Your task to perform on an android device: open app "File Manager" (install if not already installed) Image 0: 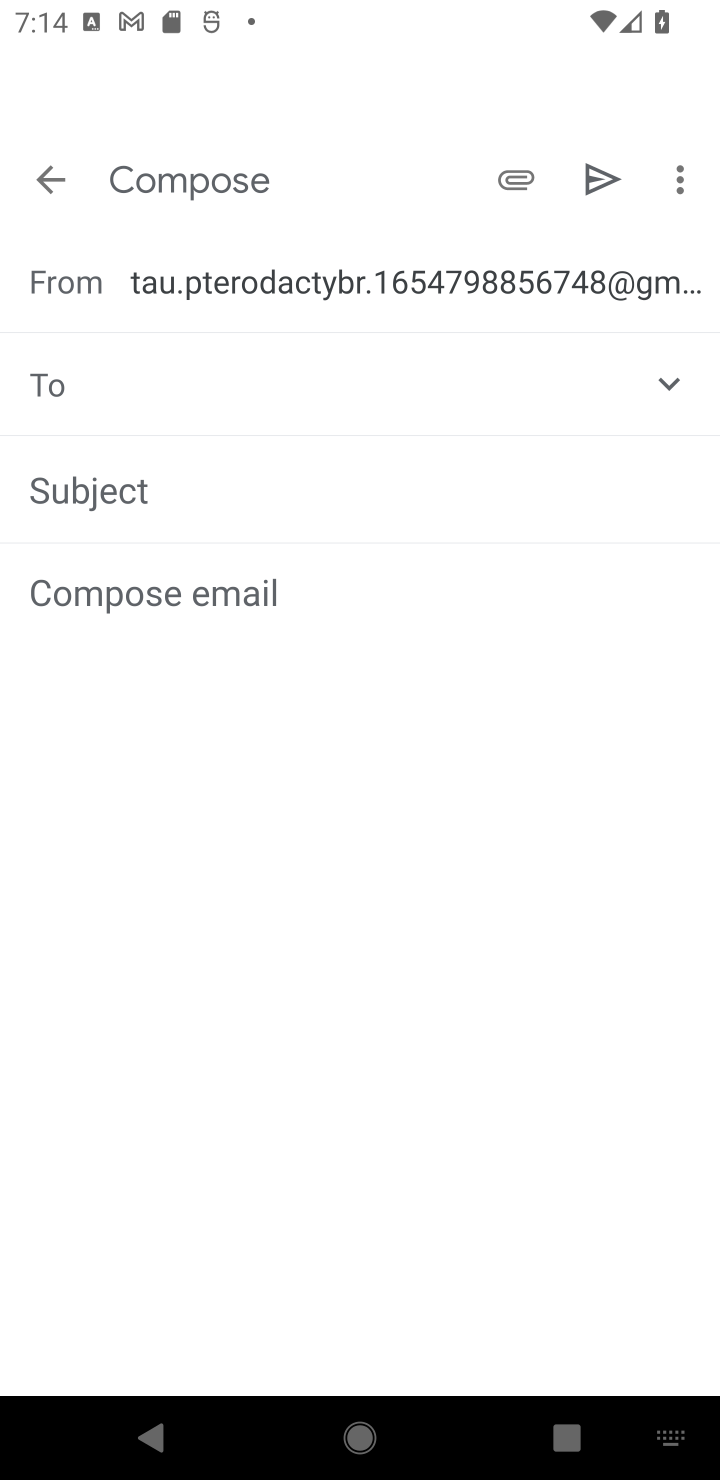
Step 0: press home button
Your task to perform on an android device: open app "File Manager" (install if not already installed) Image 1: 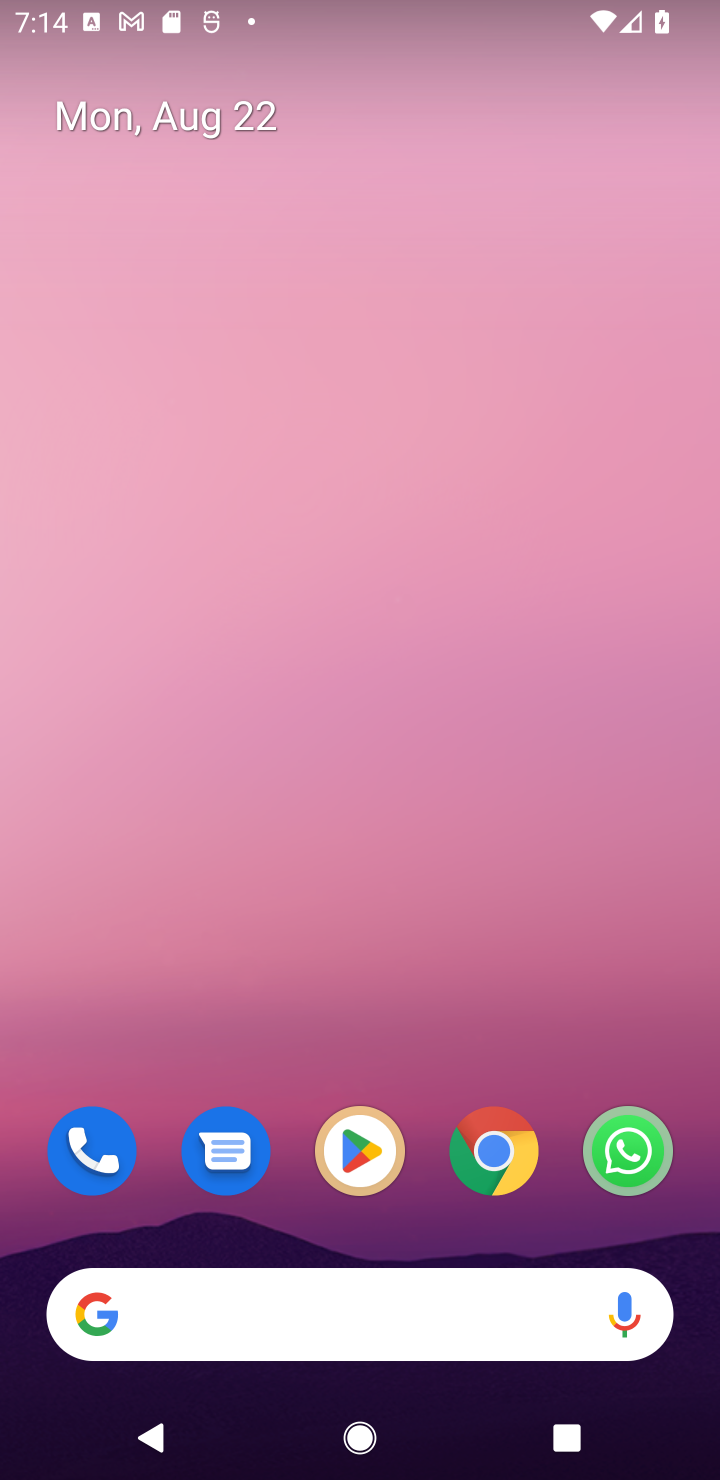
Step 1: click (360, 1163)
Your task to perform on an android device: open app "File Manager" (install if not already installed) Image 2: 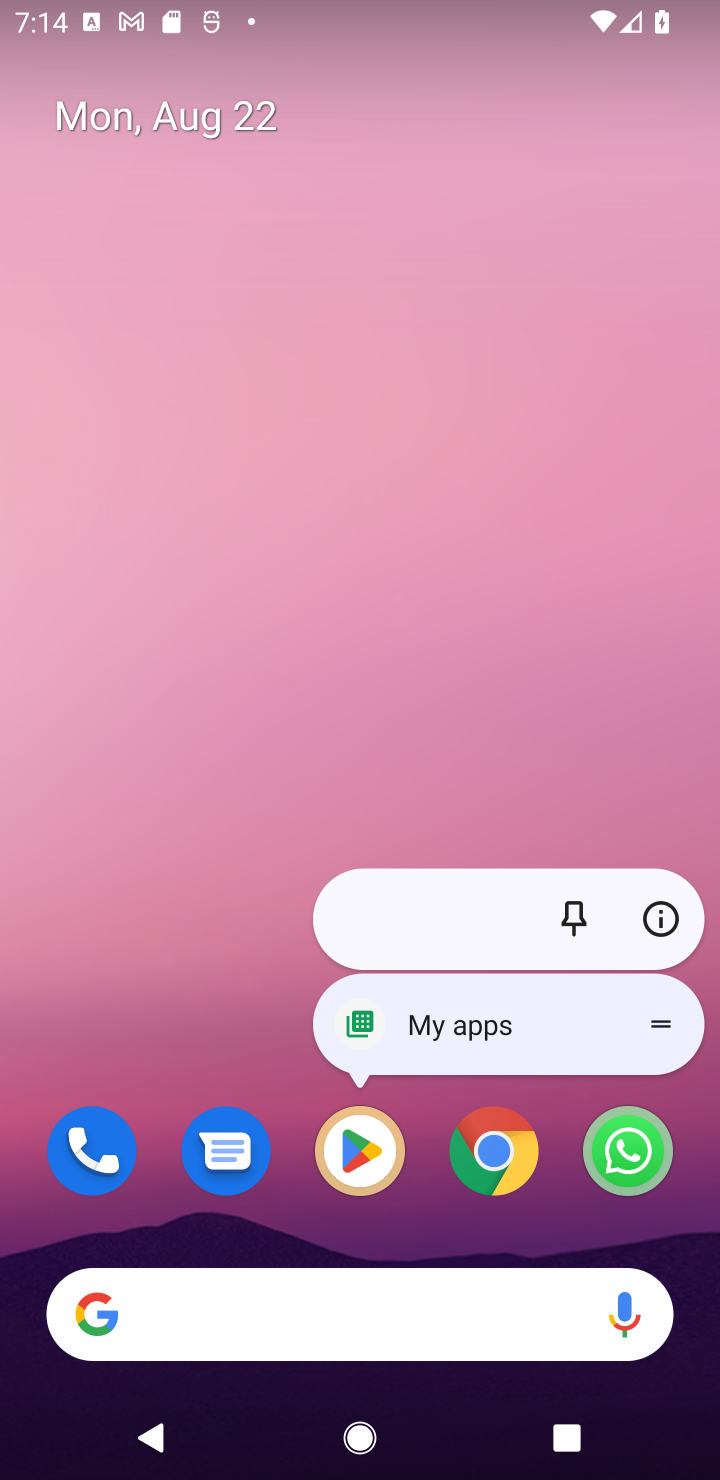
Step 2: click (360, 1174)
Your task to perform on an android device: open app "File Manager" (install if not already installed) Image 3: 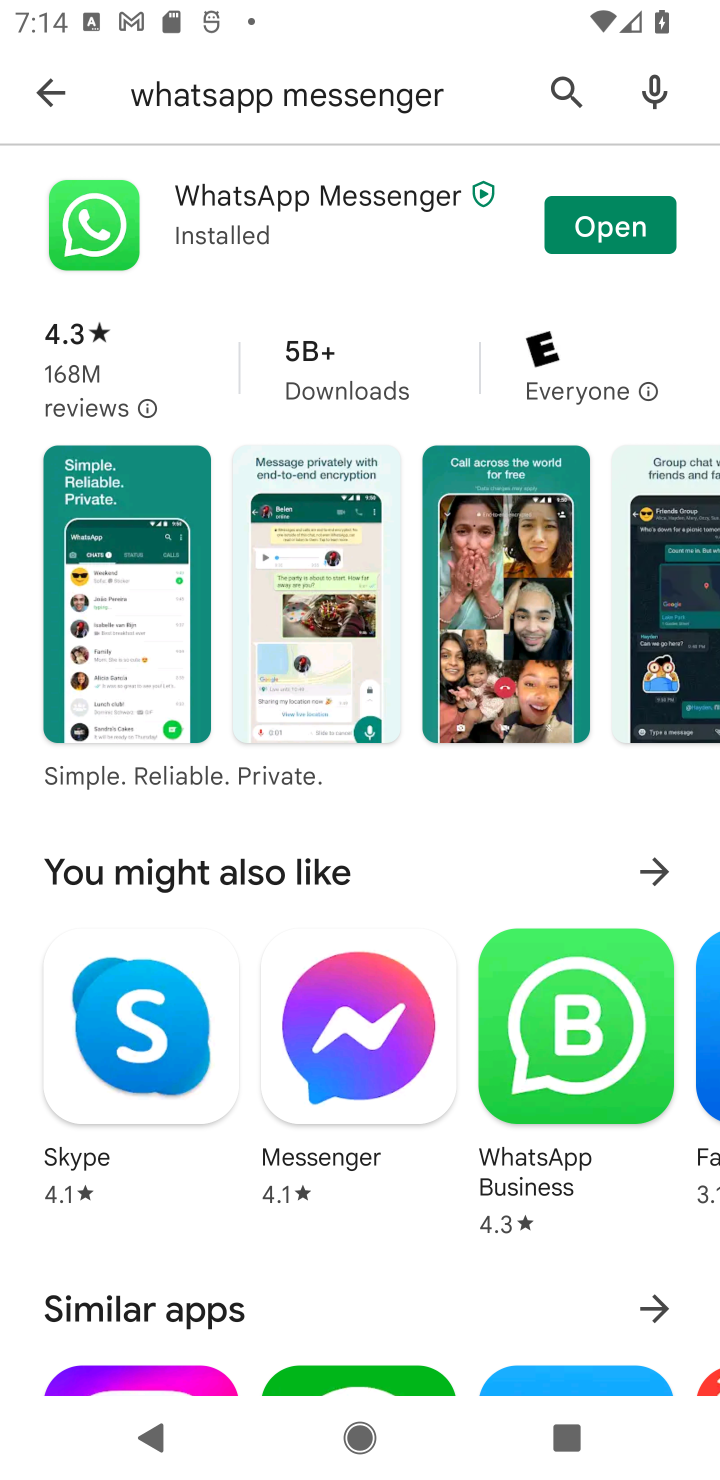
Step 3: click (553, 89)
Your task to perform on an android device: open app "File Manager" (install if not already installed) Image 4: 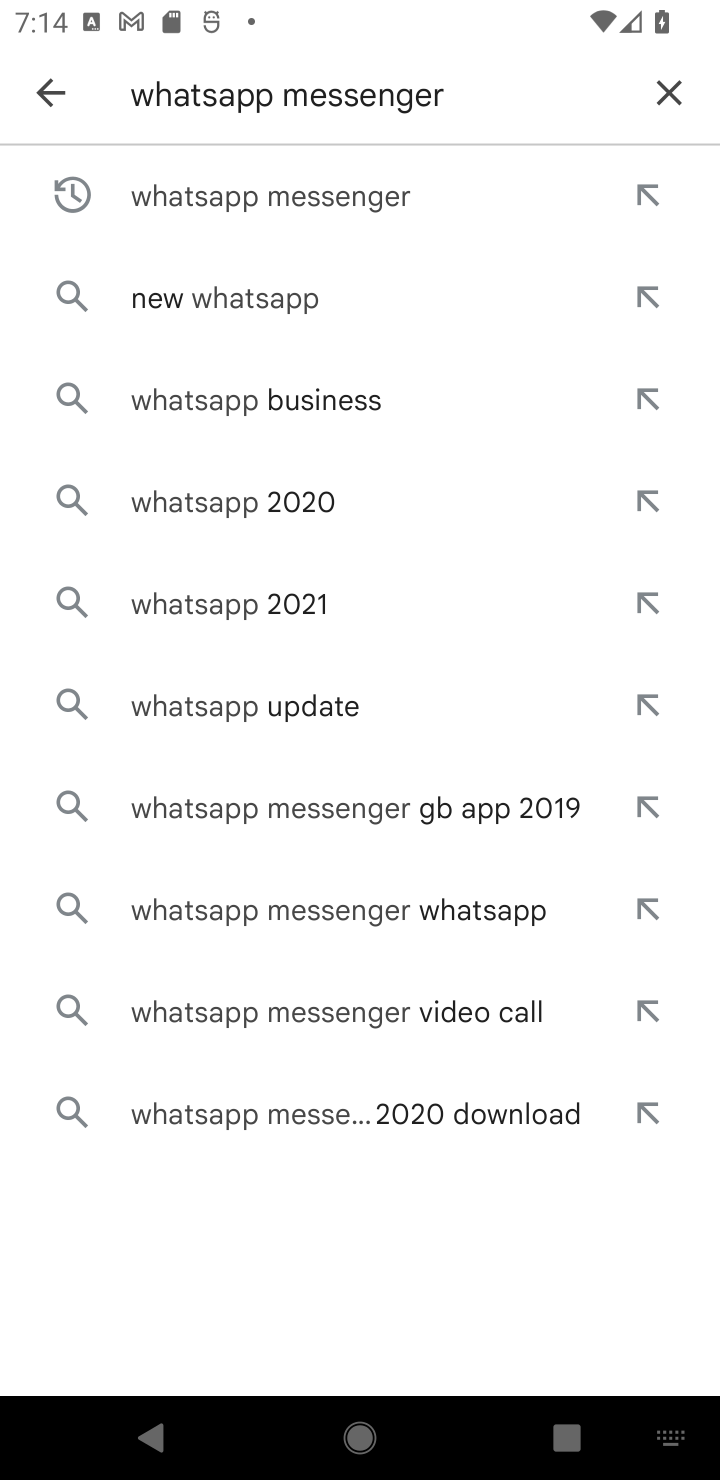
Step 4: click (668, 85)
Your task to perform on an android device: open app "File Manager" (install if not already installed) Image 5: 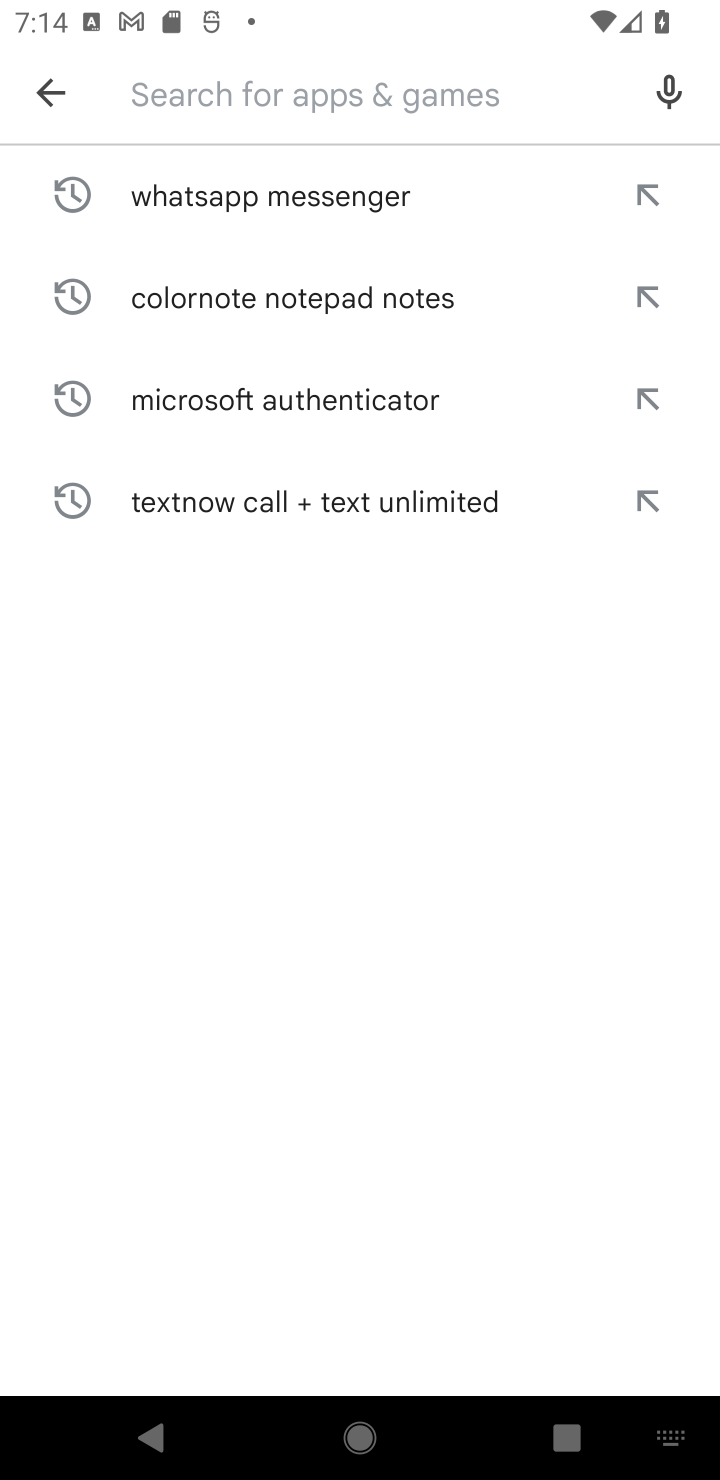
Step 5: type "File Manager"
Your task to perform on an android device: open app "File Manager" (install if not already installed) Image 6: 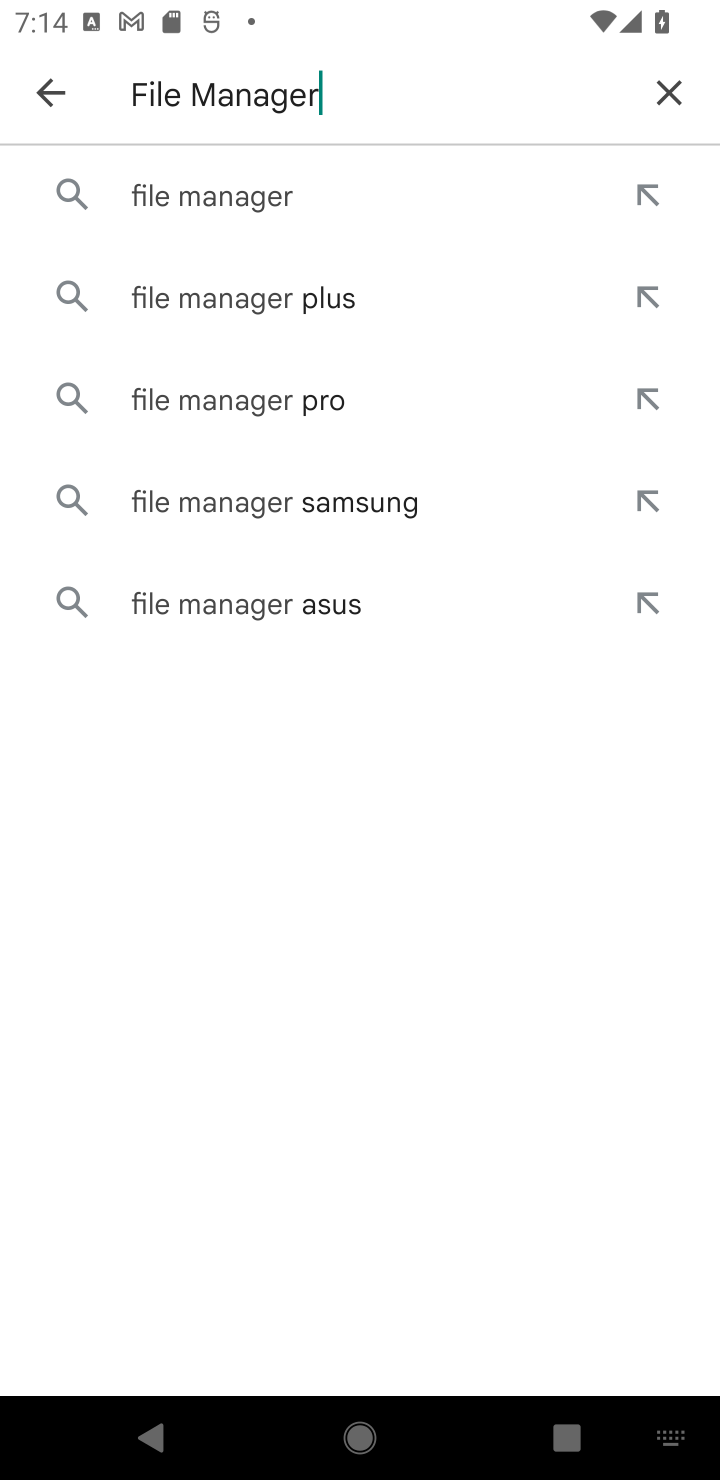
Step 6: click (267, 198)
Your task to perform on an android device: open app "File Manager" (install if not already installed) Image 7: 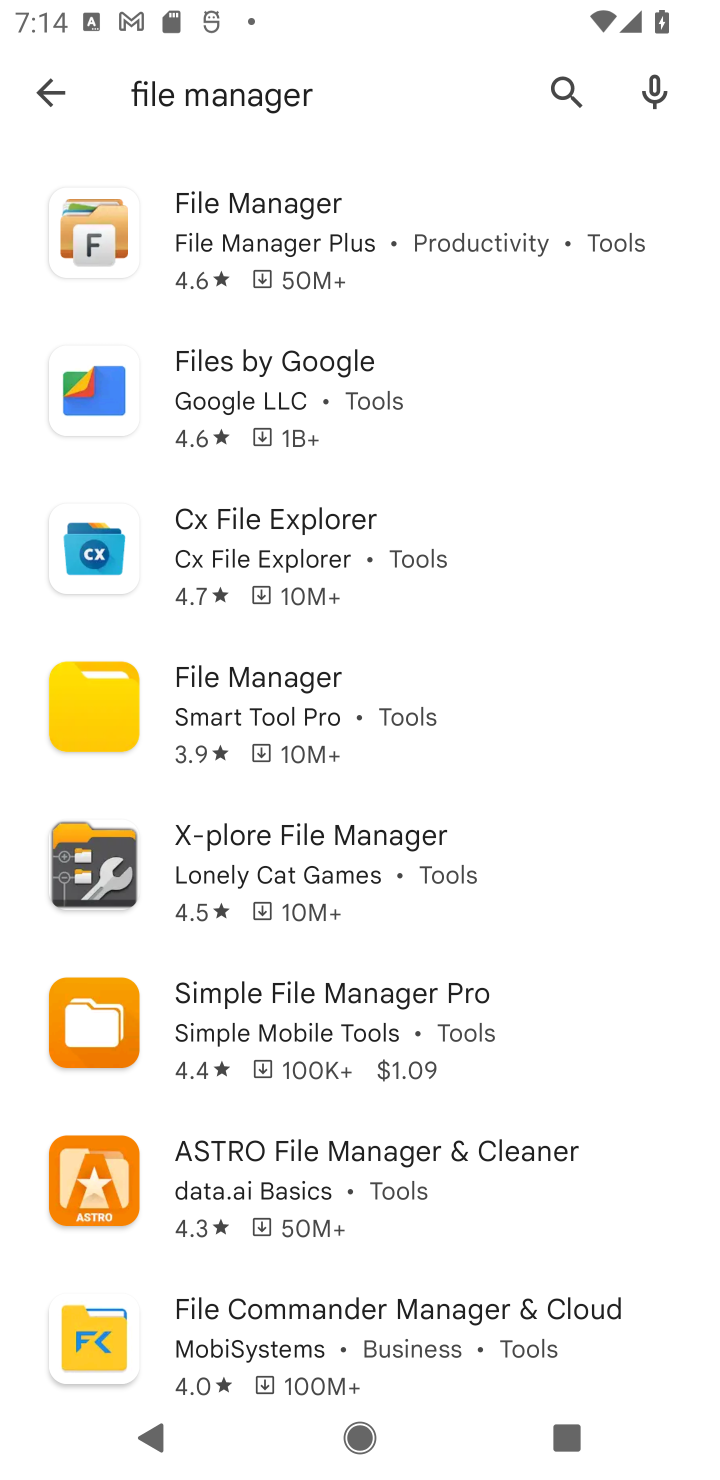
Step 7: click (300, 227)
Your task to perform on an android device: open app "File Manager" (install if not already installed) Image 8: 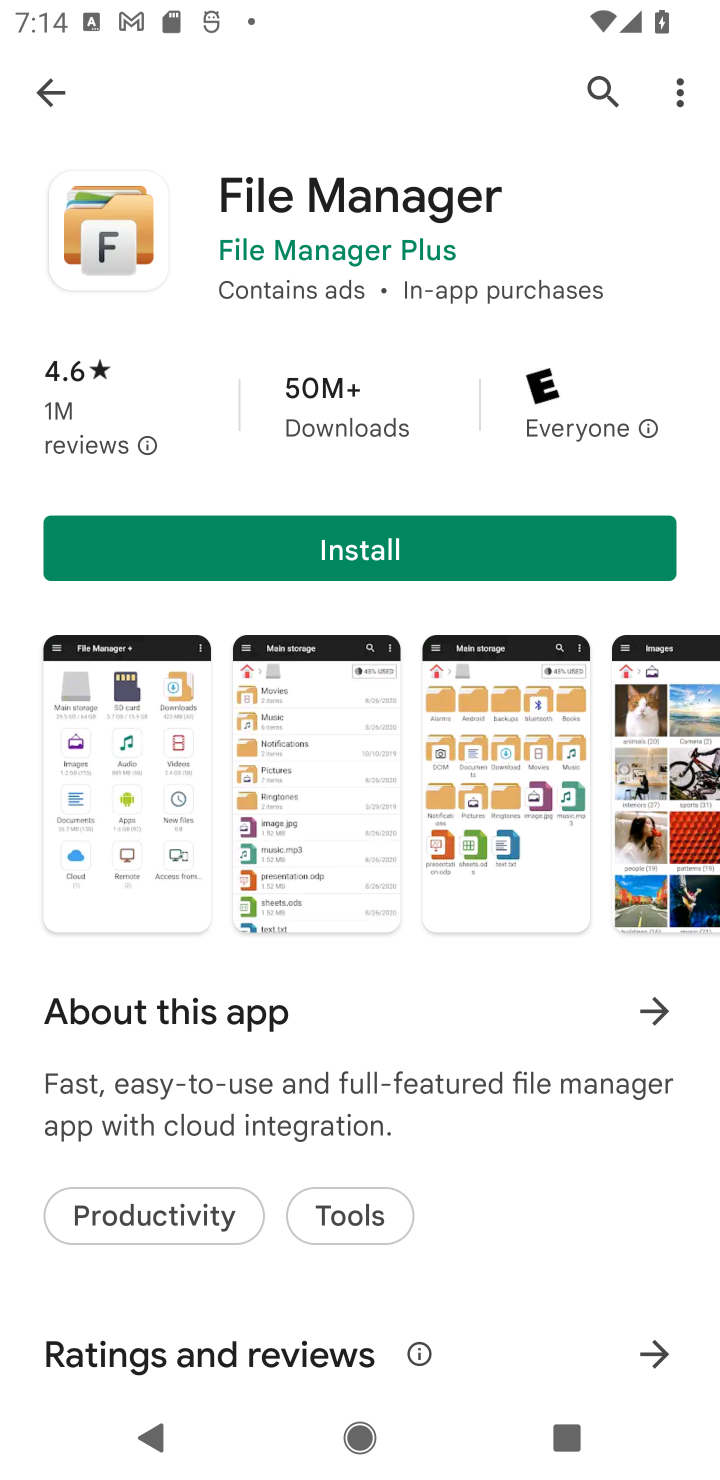
Step 8: click (358, 549)
Your task to perform on an android device: open app "File Manager" (install if not already installed) Image 9: 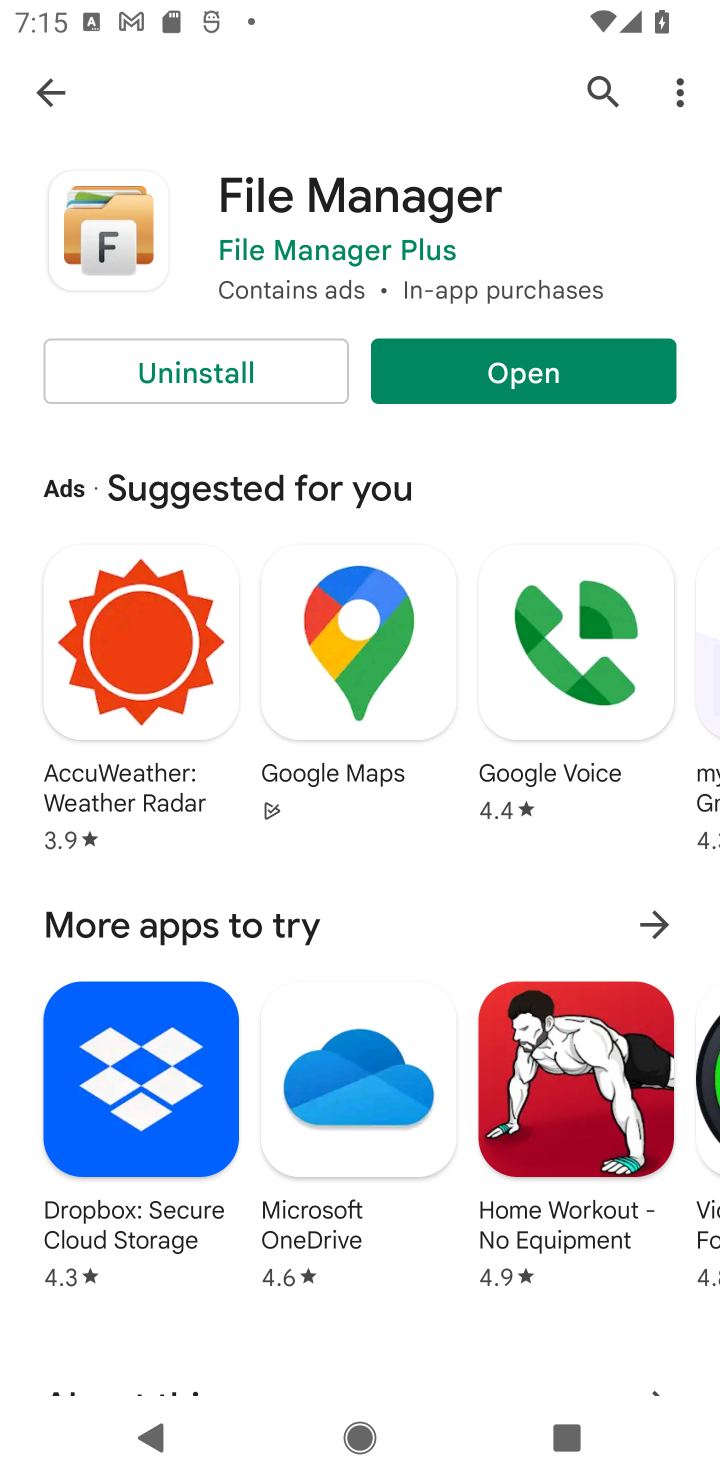
Step 9: click (560, 358)
Your task to perform on an android device: open app "File Manager" (install if not already installed) Image 10: 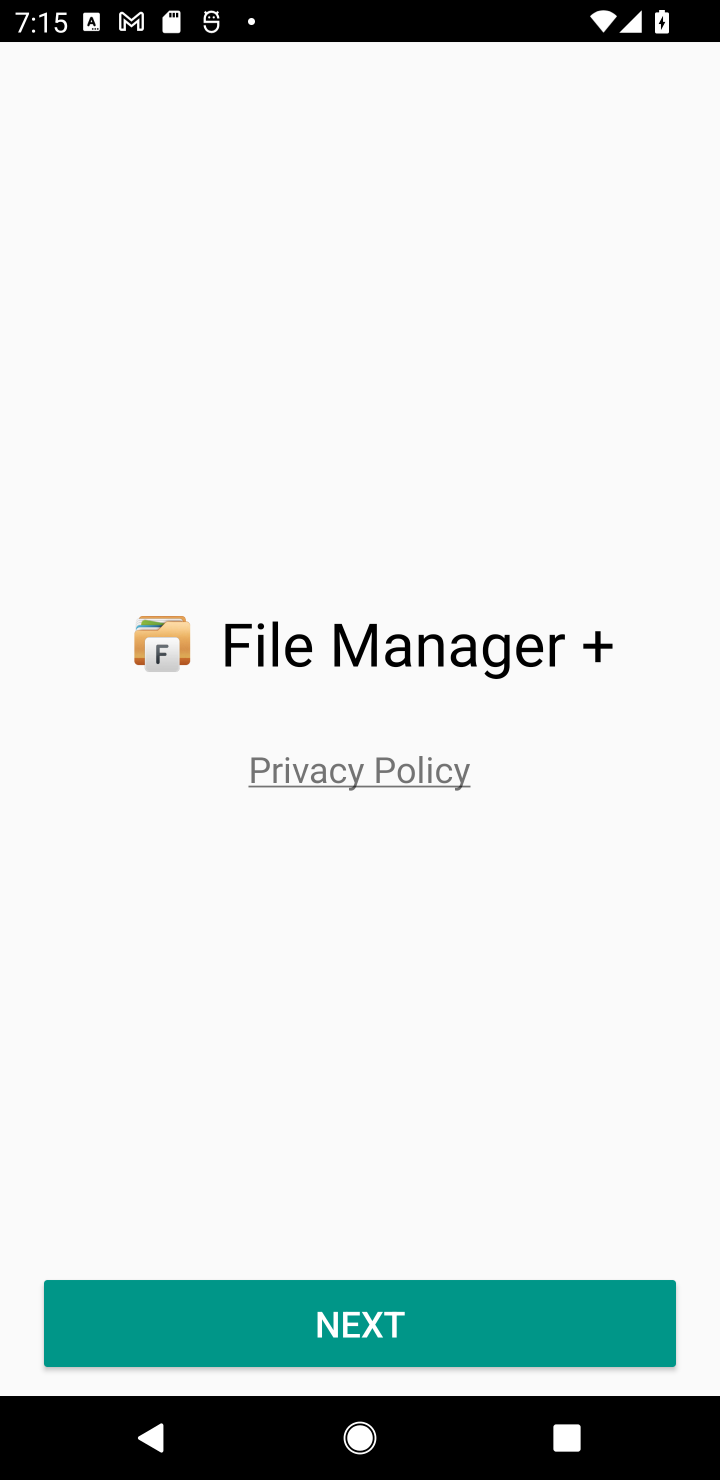
Step 10: task complete